Your task to perform on an android device: Go to Yahoo.com Image 0: 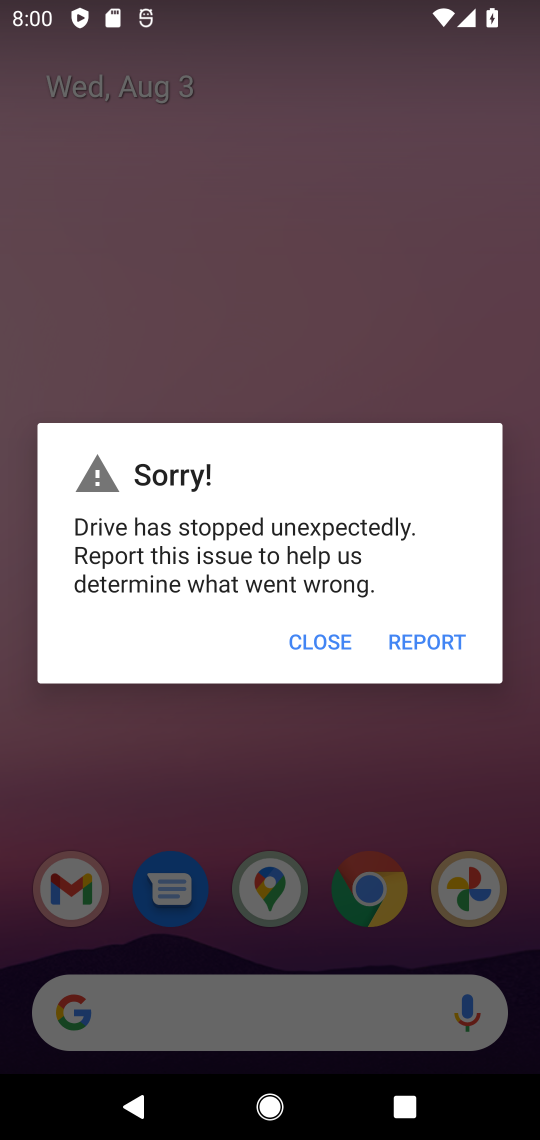
Step 0: press home button
Your task to perform on an android device: Go to Yahoo.com Image 1: 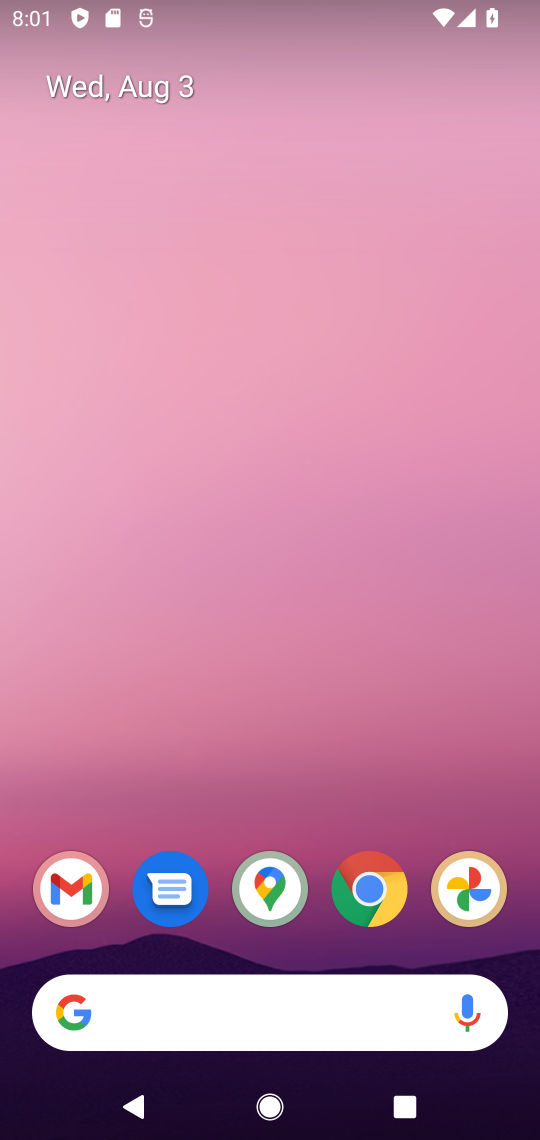
Step 1: click (353, 880)
Your task to perform on an android device: Go to Yahoo.com Image 2: 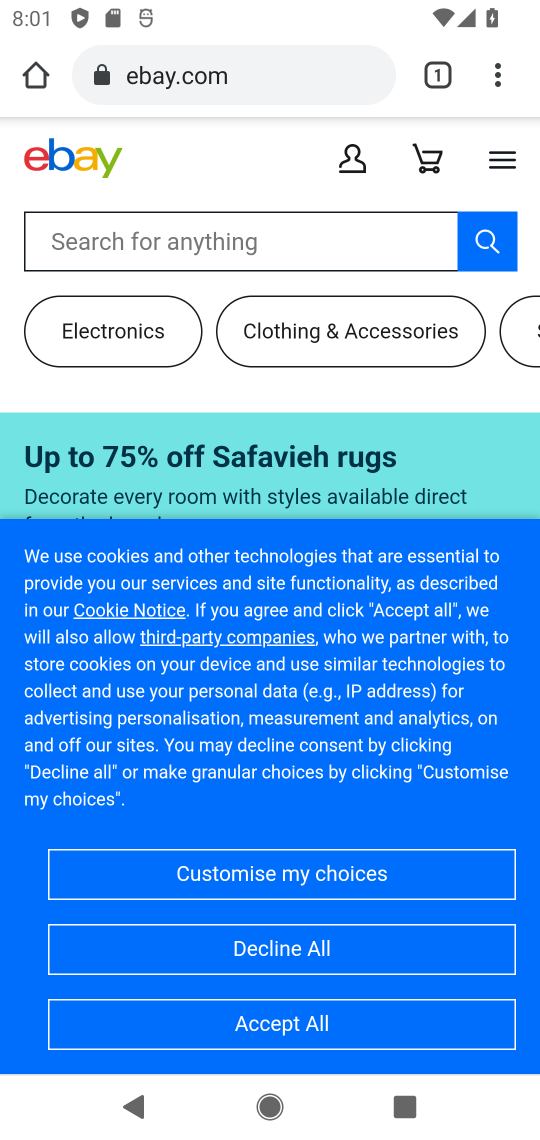
Step 2: click (177, 74)
Your task to perform on an android device: Go to Yahoo.com Image 3: 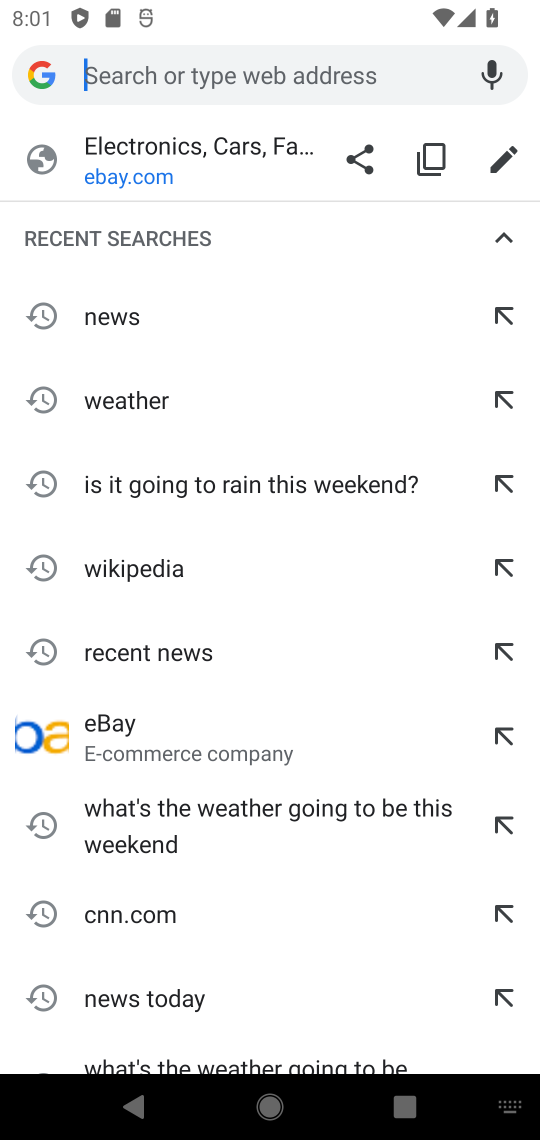
Step 3: type "yahoo.com"
Your task to perform on an android device: Go to Yahoo.com Image 4: 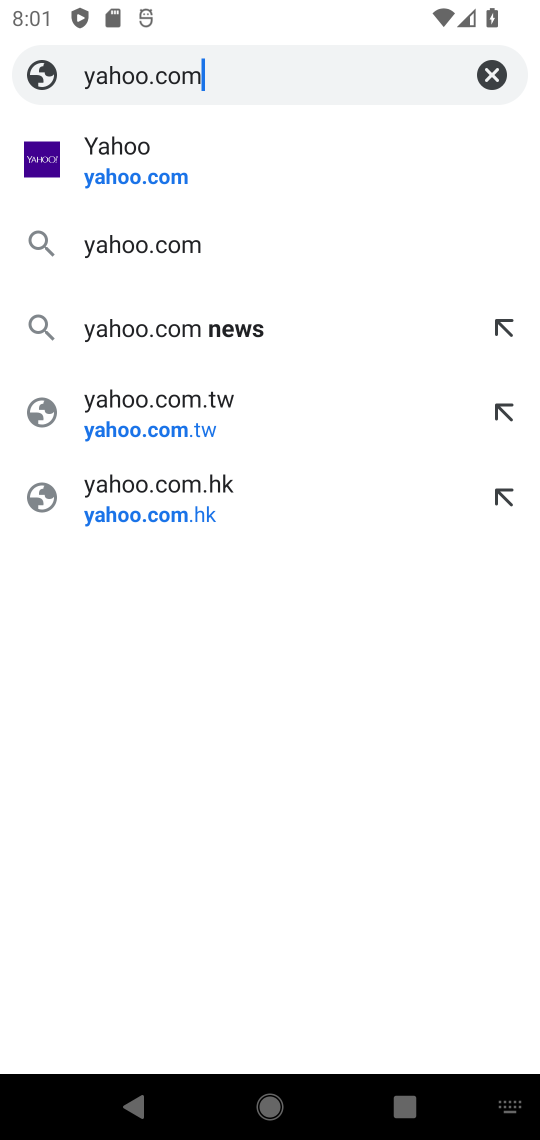
Step 4: click (132, 146)
Your task to perform on an android device: Go to Yahoo.com Image 5: 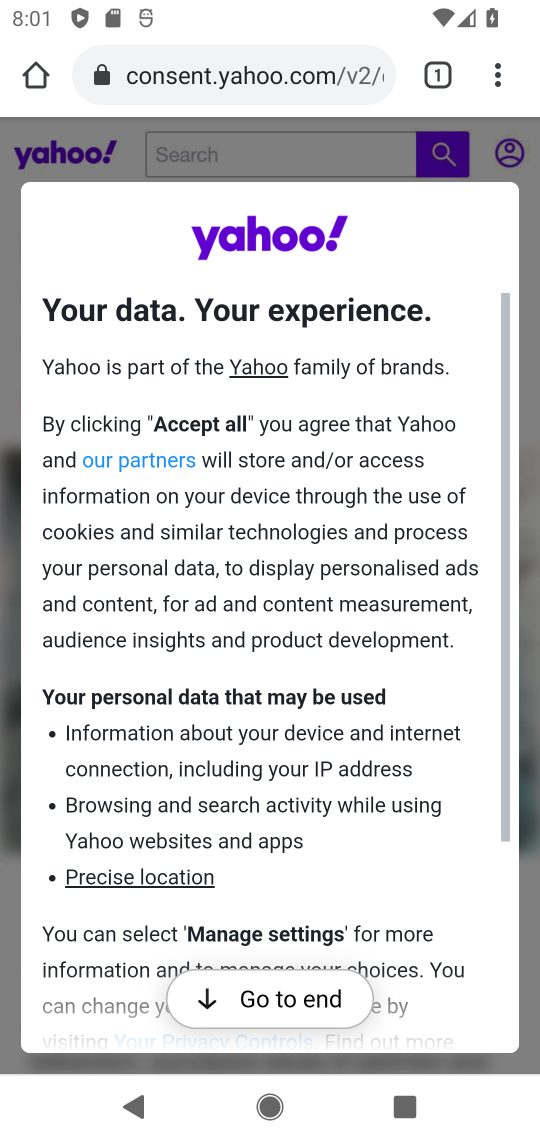
Step 5: task complete